Your task to perform on an android device: Go to location settings Image 0: 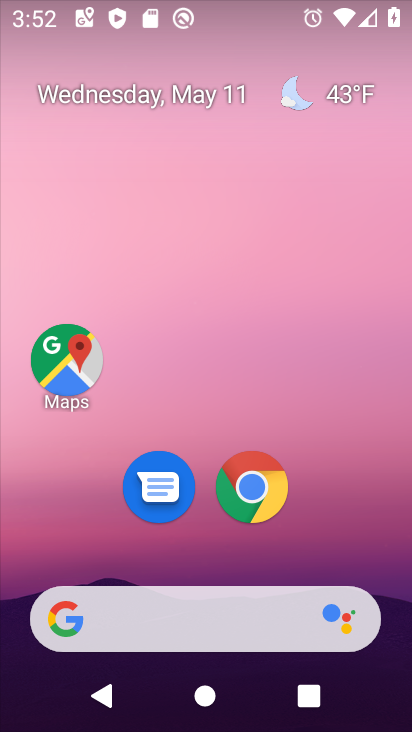
Step 0: drag from (349, 516) to (353, 138)
Your task to perform on an android device: Go to location settings Image 1: 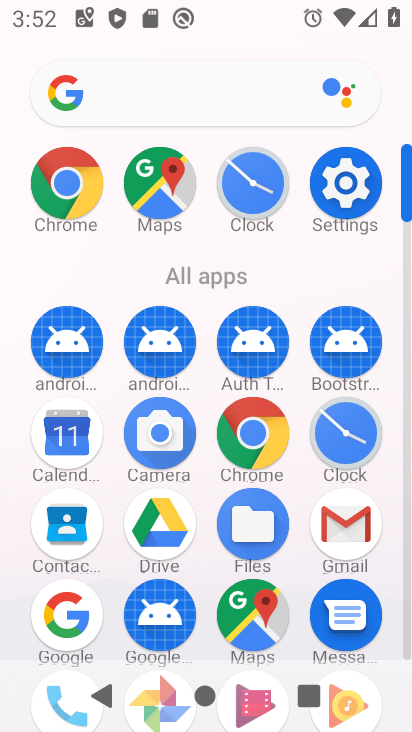
Step 1: click (334, 188)
Your task to perform on an android device: Go to location settings Image 2: 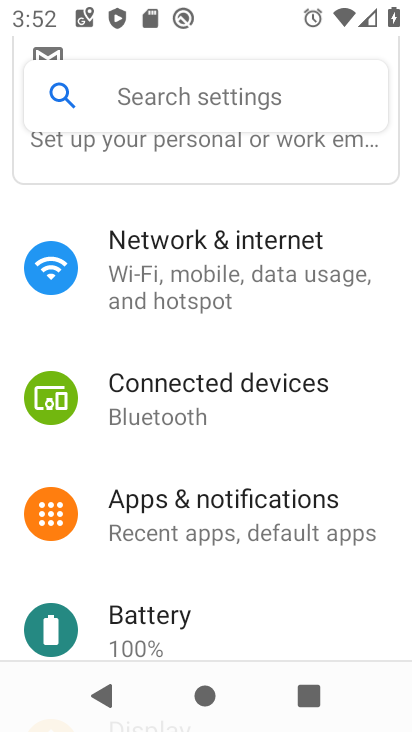
Step 2: drag from (254, 592) to (240, 376)
Your task to perform on an android device: Go to location settings Image 3: 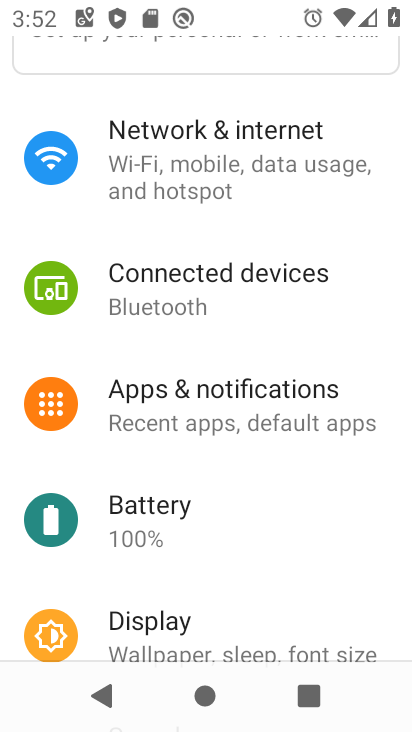
Step 3: drag from (217, 592) to (217, 306)
Your task to perform on an android device: Go to location settings Image 4: 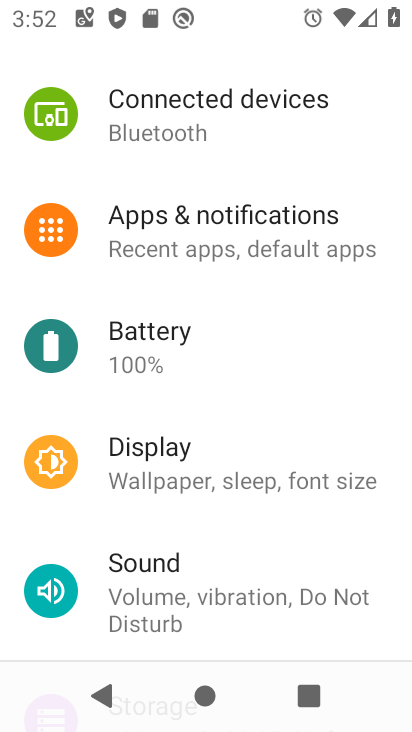
Step 4: drag from (218, 602) to (254, 294)
Your task to perform on an android device: Go to location settings Image 5: 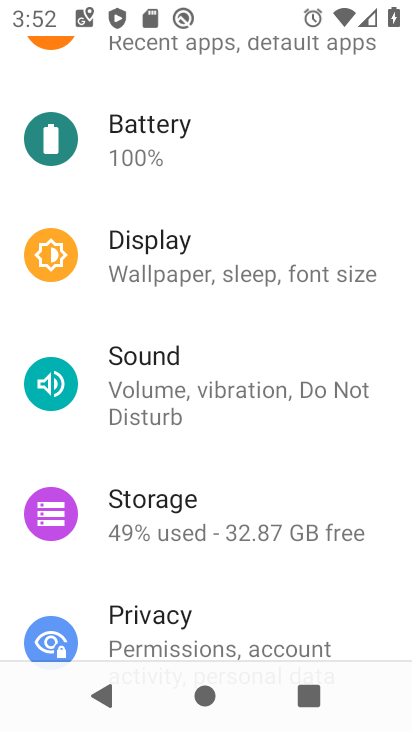
Step 5: drag from (211, 587) to (239, 302)
Your task to perform on an android device: Go to location settings Image 6: 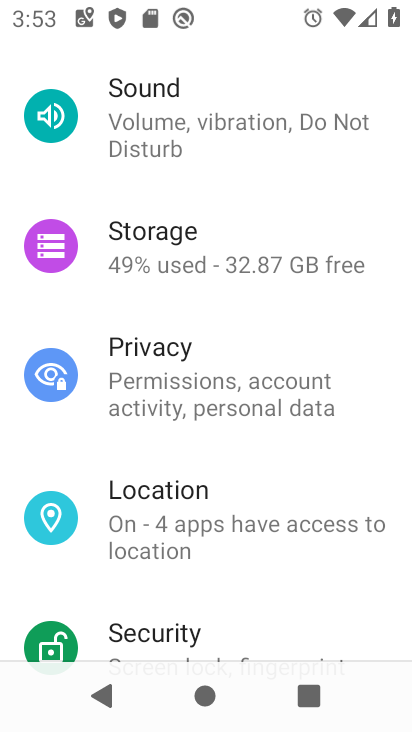
Step 6: click (188, 519)
Your task to perform on an android device: Go to location settings Image 7: 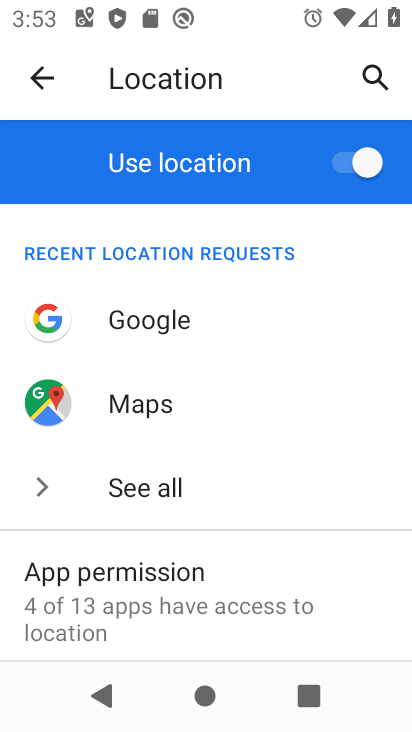
Step 7: task complete